Your task to perform on an android device: Go to location settings Image 0: 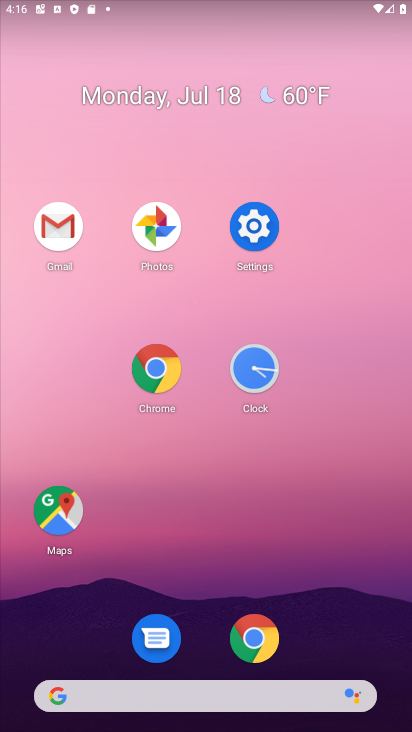
Step 0: click (242, 212)
Your task to perform on an android device: Go to location settings Image 1: 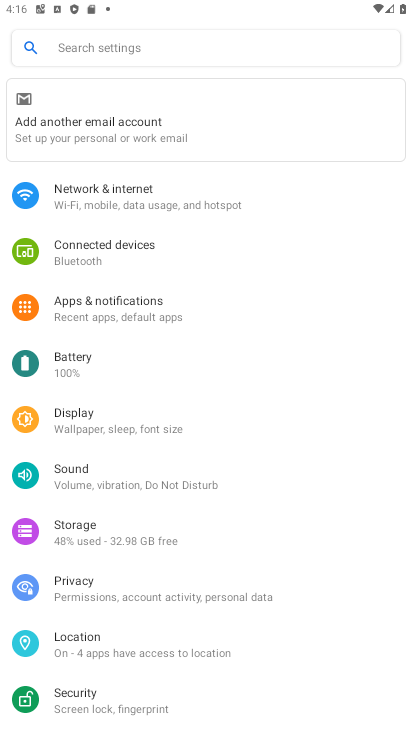
Step 1: click (121, 649)
Your task to perform on an android device: Go to location settings Image 2: 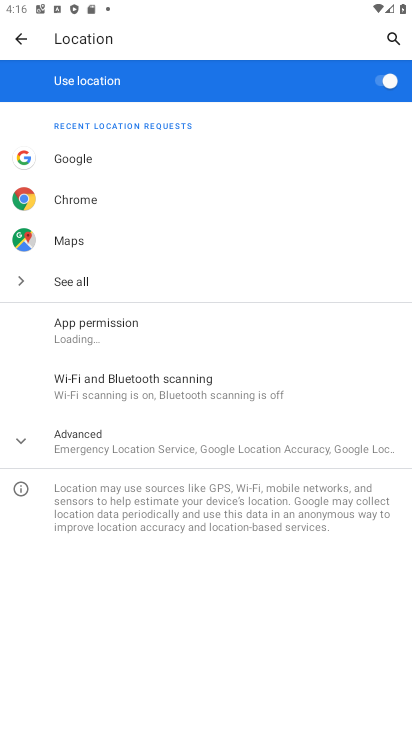
Step 2: task complete